Your task to perform on an android device: Open wifi settings Image 0: 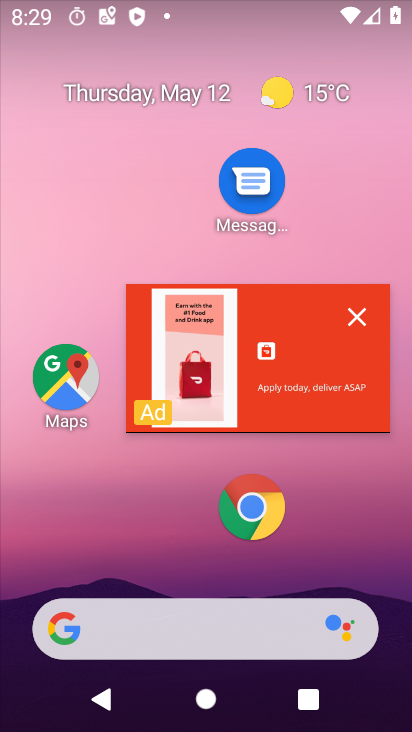
Step 0: drag from (235, 347) to (164, 715)
Your task to perform on an android device: Open wifi settings Image 1: 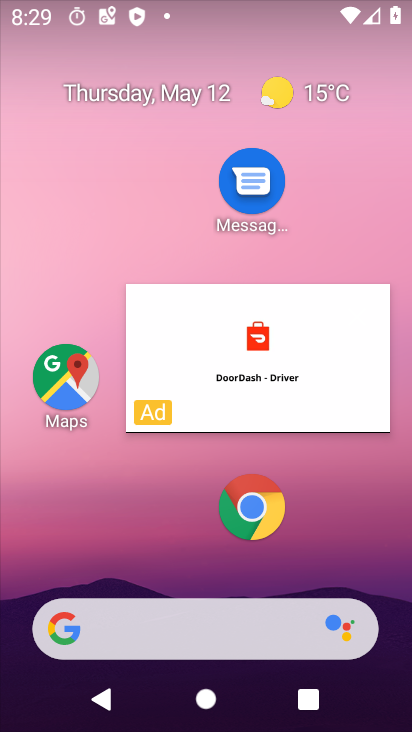
Step 1: drag from (280, 366) to (160, 728)
Your task to perform on an android device: Open wifi settings Image 2: 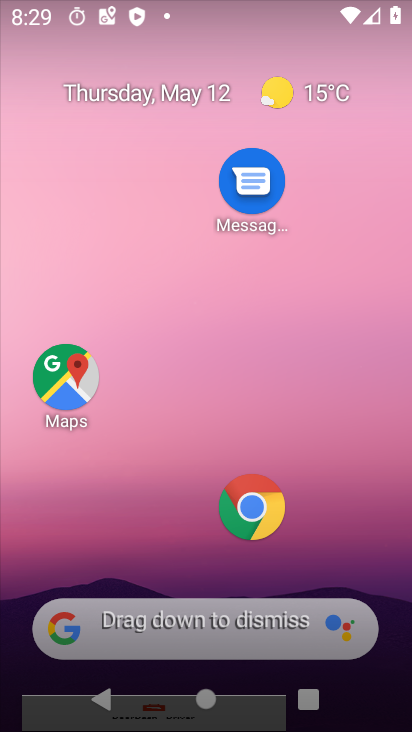
Step 2: drag from (329, 524) to (322, 96)
Your task to perform on an android device: Open wifi settings Image 3: 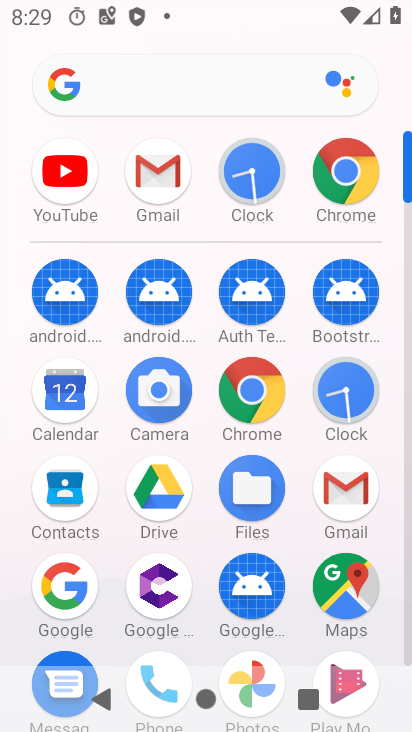
Step 3: drag from (208, 643) to (304, 202)
Your task to perform on an android device: Open wifi settings Image 4: 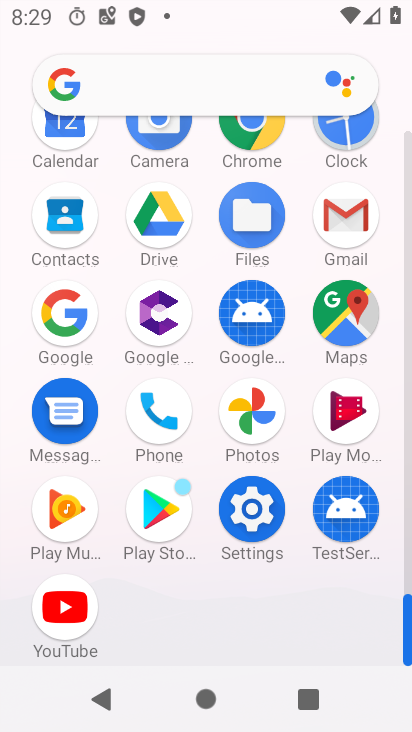
Step 4: click (261, 511)
Your task to perform on an android device: Open wifi settings Image 5: 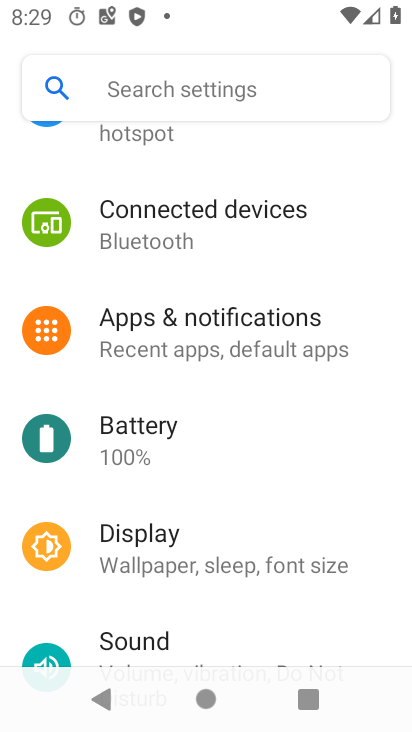
Step 5: drag from (268, 459) to (262, 606)
Your task to perform on an android device: Open wifi settings Image 6: 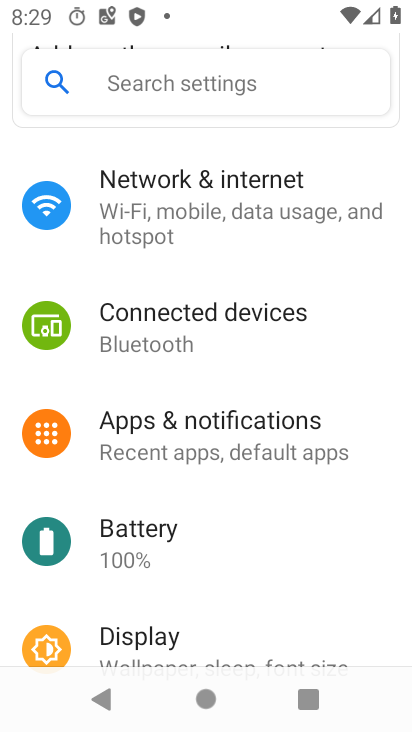
Step 6: click (227, 193)
Your task to perform on an android device: Open wifi settings Image 7: 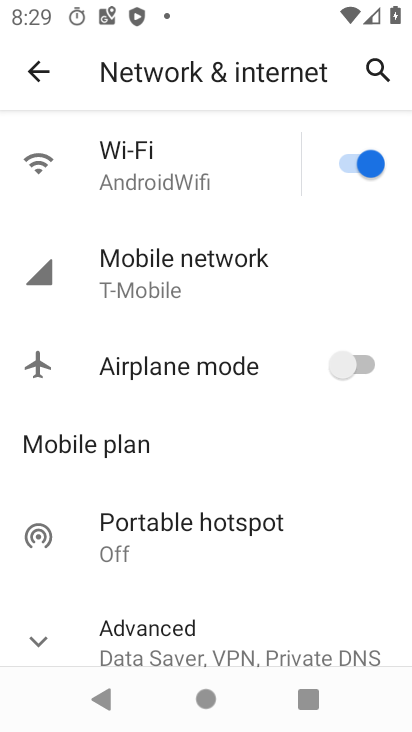
Step 7: click (179, 181)
Your task to perform on an android device: Open wifi settings Image 8: 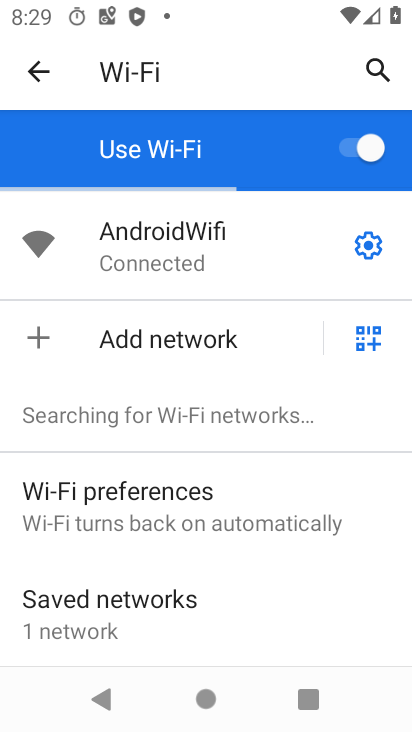
Step 8: task complete